Your task to perform on an android device: Go to Google Image 0: 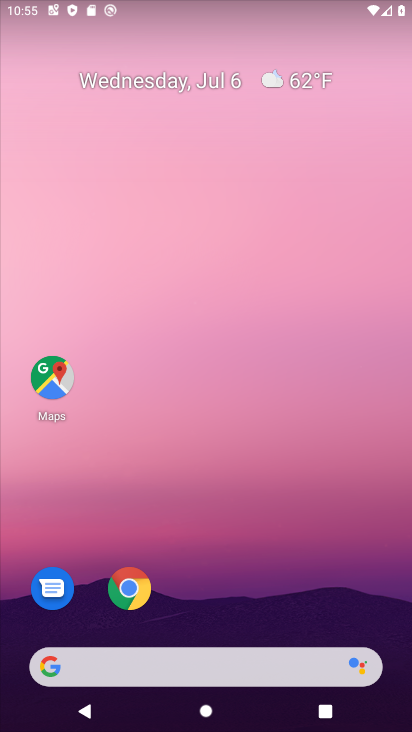
Step 0: click (131, 588)
Your task to perform on an android device: Go to Google Image 1: 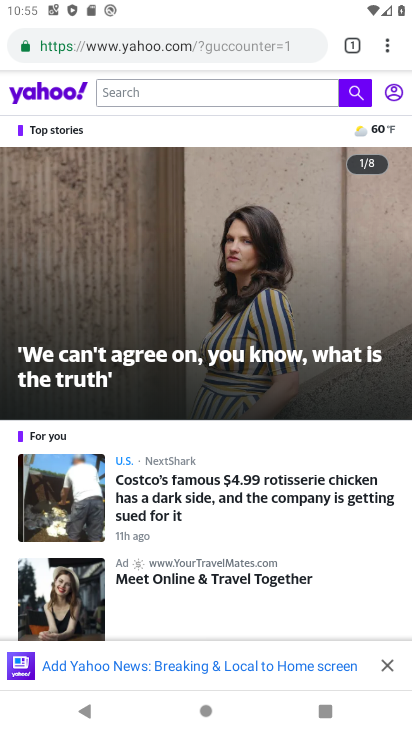
Step 1: task complete